Your task to perform on an android device: Go to Amazon Image 0: 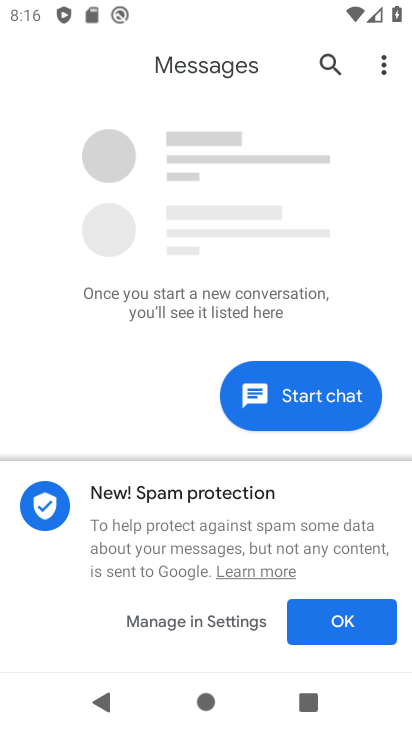
Step 0: press home button
Your task to perform on an android device: Go to Amazon Image 1: 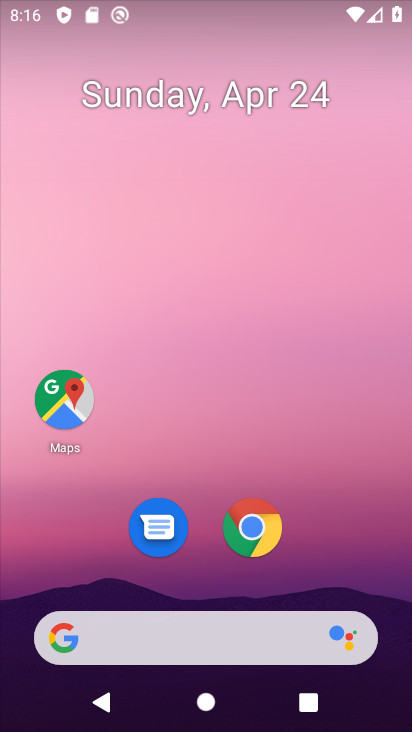
Step 1: click (256, 533)
Your task to perform on an android device: Go to Amazon Image 2: 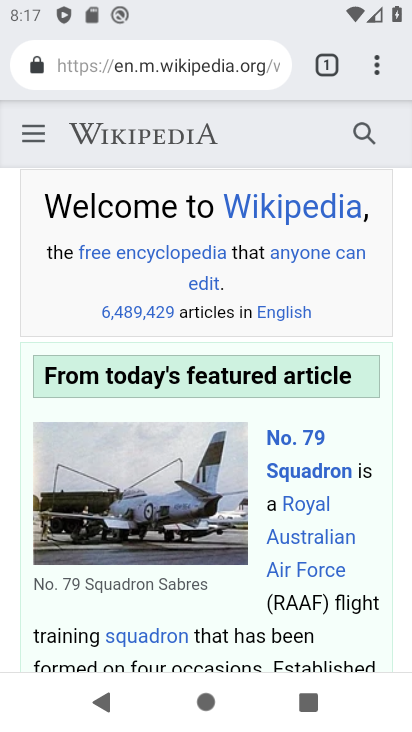
Step 2: click (168, 62)
Your task to perform on an android device: Go to Amazon Image 3: 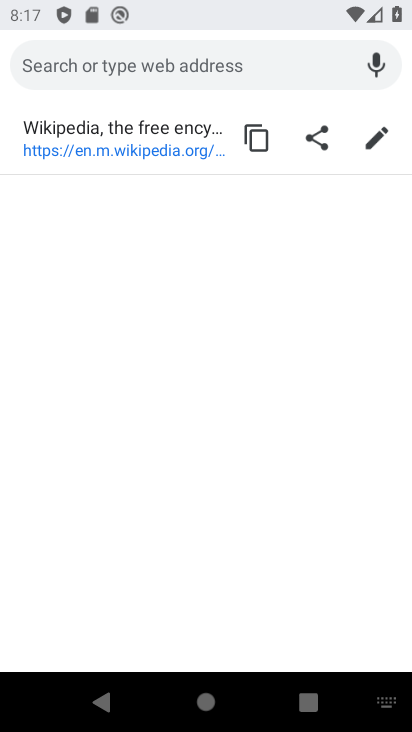
Step 3: type "amazon"
Your task to perform on an android device: Go to Amazon Image 4: 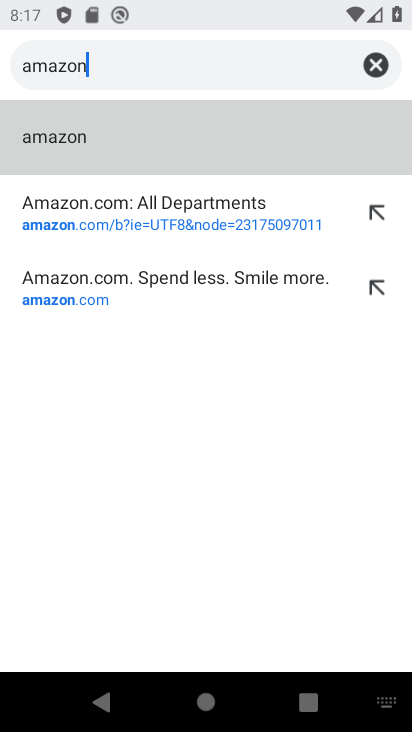
Step 4: click (67, 144)
Your task to perform on an android device: Go to Amazon Image 5: 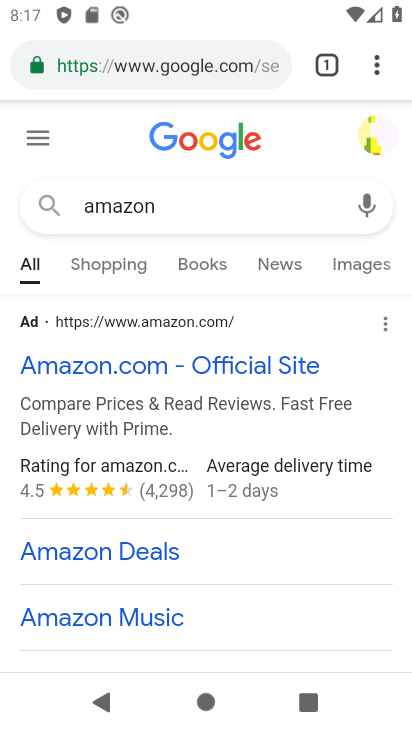
Step 5: drag from (313, 500) to (307, 345)
Your task to perform on an android device: Go to Amazon Image 6: 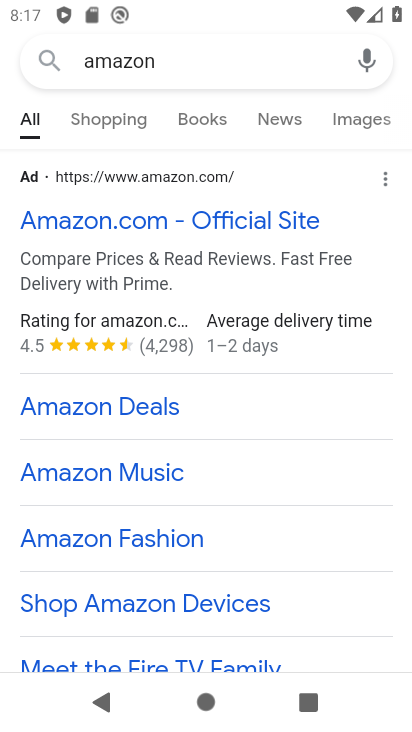
Step 6: click (59, 219)
Your task to perform on an android device: Go to Amazon Image 7: 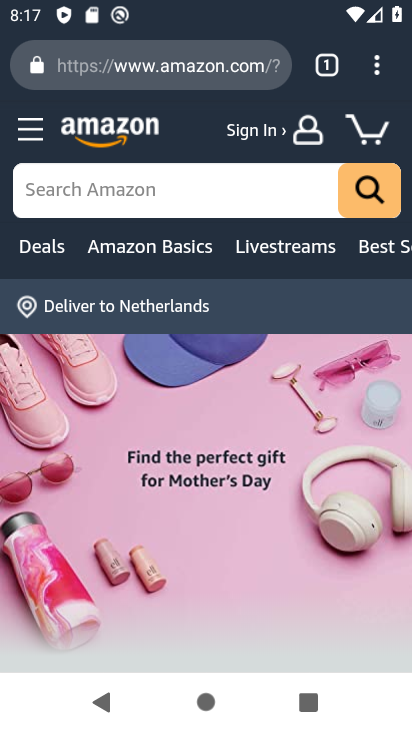
Step 7: task complete